Your task to perform on an android device: Open accessibility settings Image 0: 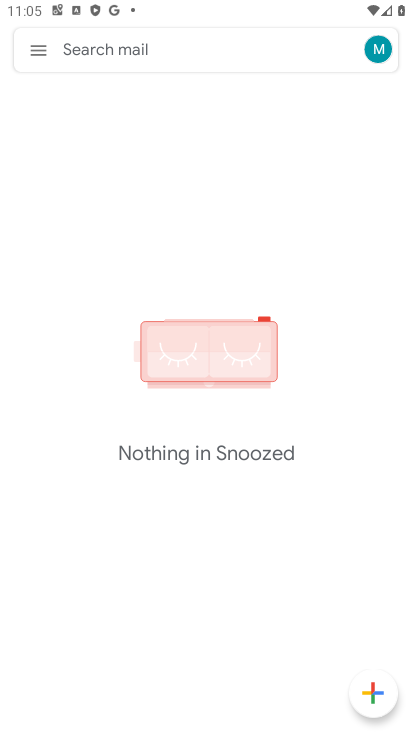
Step 0: press home button
Your task to perform on an android device: Open accessibility settings Image 1: 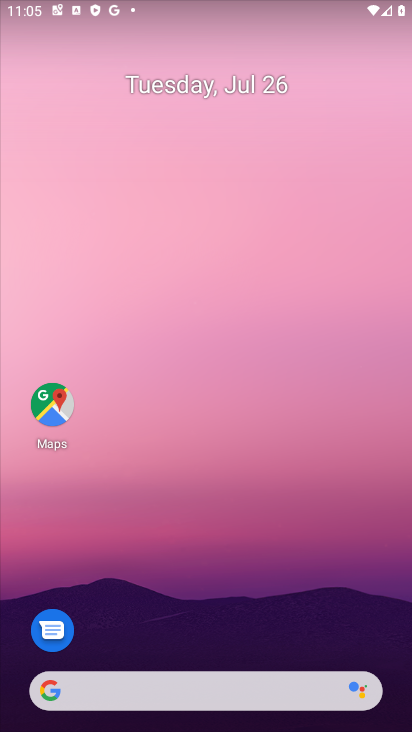
Step 1: drag from (247, 614) to (351, 64)
Your task to perform on an android device: Open accessibility settings Image 2: 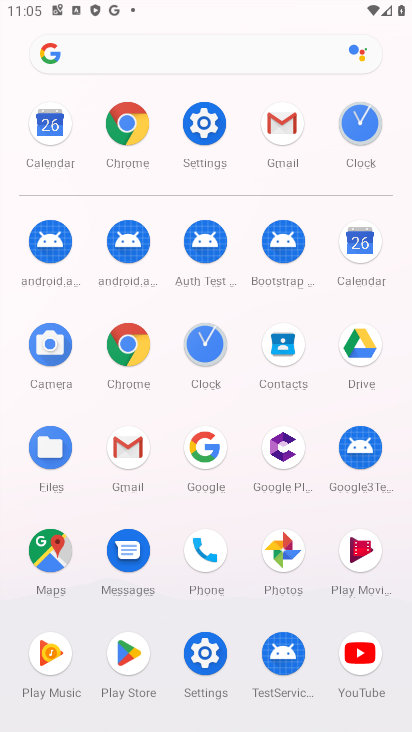
Step 2: click (206, 130)
Your task to perform on an android device: Open accessibility settings Image 3: 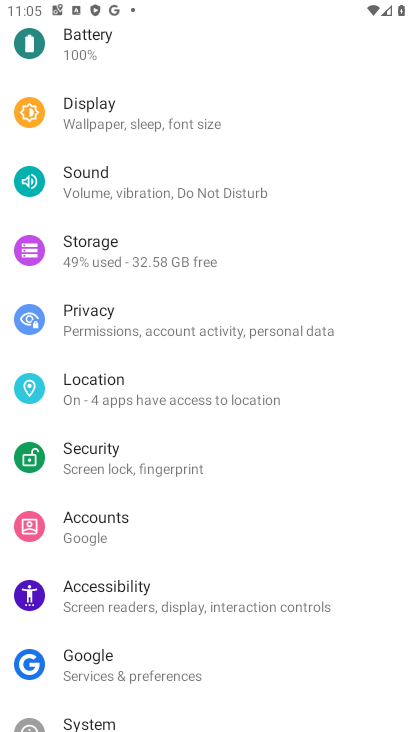
Step 3: click (141, 576)
Your task to perform on an android device: Open accessibility settings Image 4: 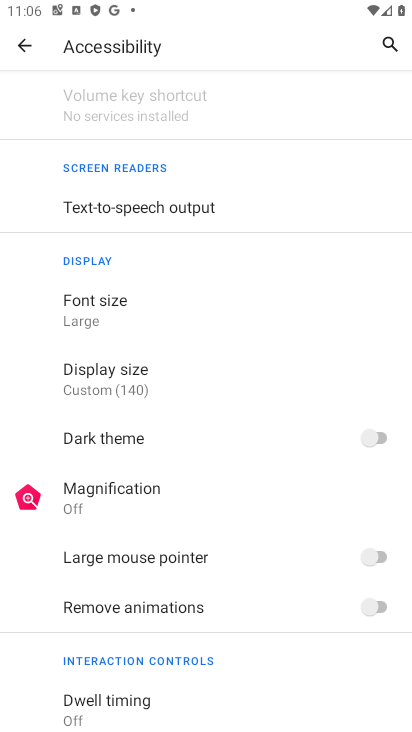
Step 4: task complete